Your task to perform on an android device: Play the last video I watched on Youtube Image 0: 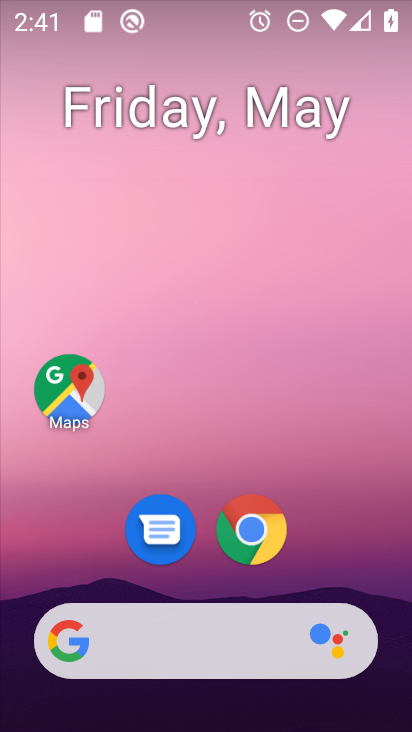
Step 0: drag from (395, 718) to (314, 228)
Your task to perform on an android device: Play the last video I watched on Youtube Image 1: 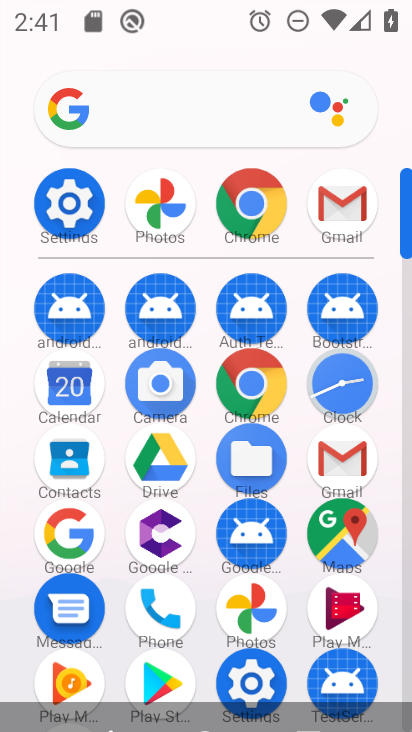
Step 1: drag from (407, 176) to (405, 50)
Your task to perform on an android device: Play the last video I watched on Youtube Image 2: 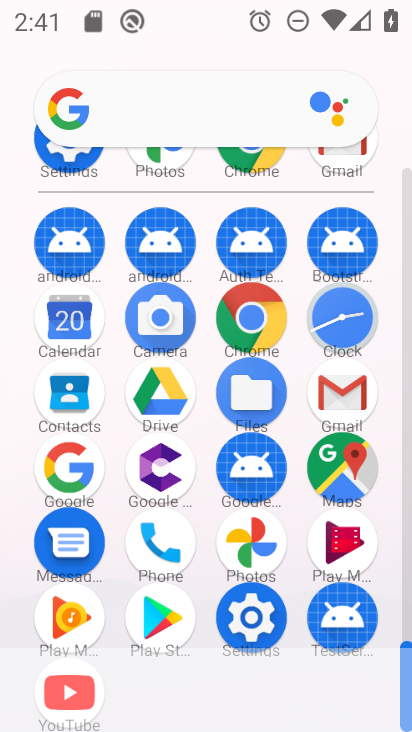
Step 2: click (56, 691)
Your task to perform on an android device: Play the last video I watched on Youtube Image 3: 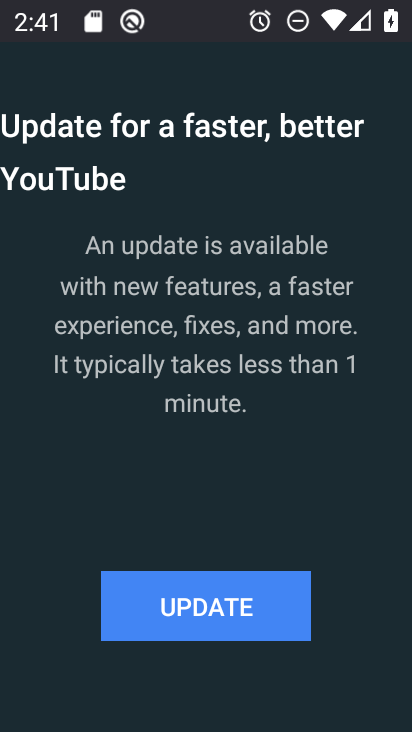
Step 3: click (194, 608)
Your task to perform on an android device: Play the last video I watched on Youtube Image 4: 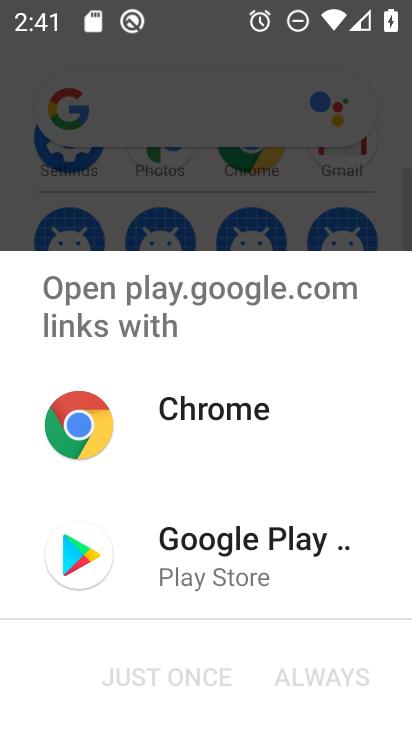
Step 4: click (171, 551)
Your task to perform on an android device: Play the last video I watched on Youtube Image 5: 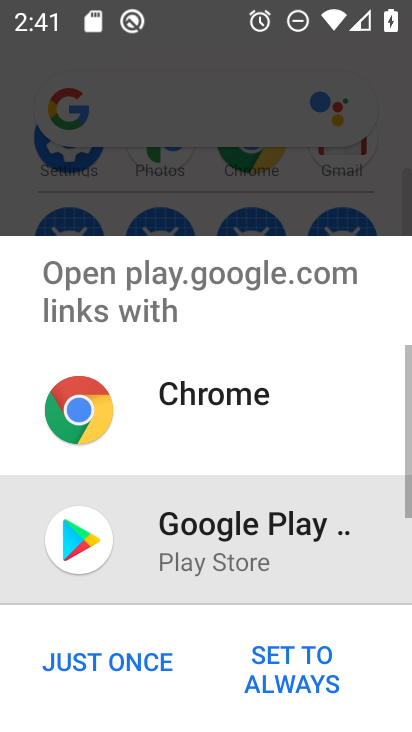
Step 5: click (119, 646)
Your task to perform on an android device: Play the last video I watched on Youtube Image 6: 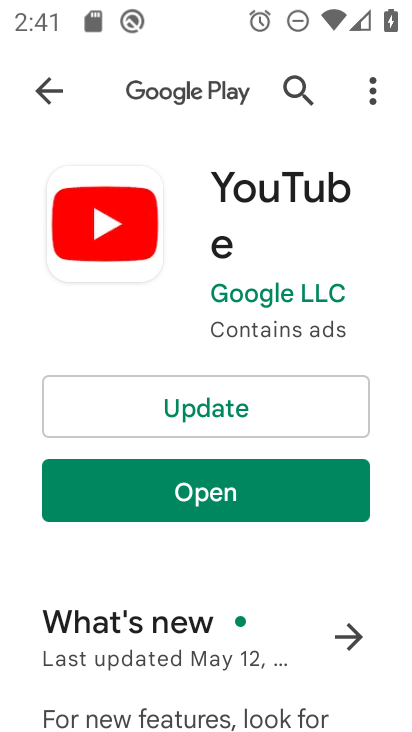
Step 6: click (218, 409)
Your task to perform on an android device: Play the last video I watched on Youtube Image 7: 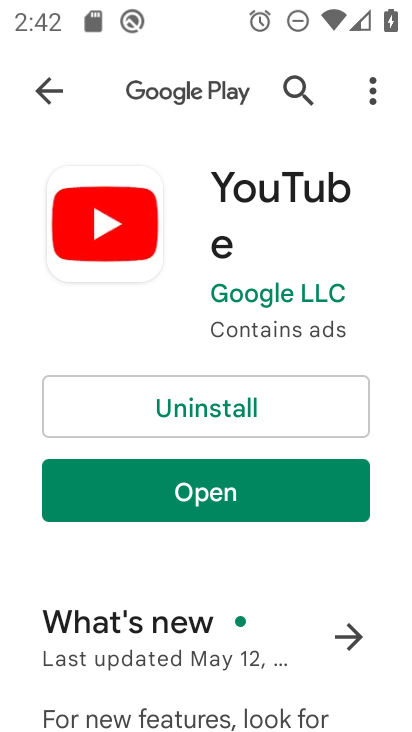
Step 7: click (230, 490)
Your task to perform on an android device: Play the last video I watched on Youtube Image 8: 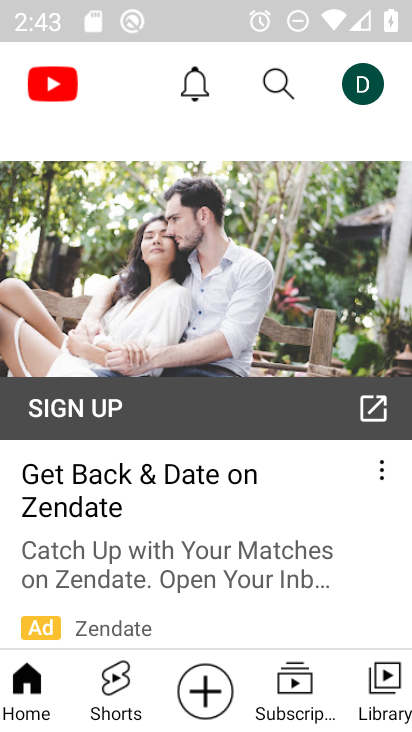
Step 8: click (386, 693)
Your task to perform on an android device: Play the last video I watched on Youtube Image 9: 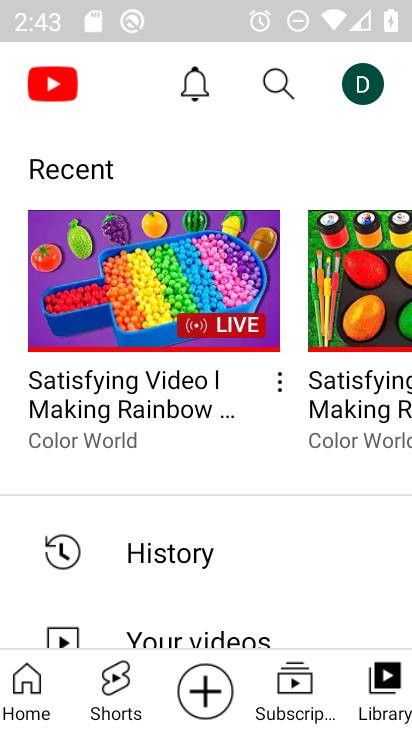
Step 9: click (129, 286)
Your task to perform on an android device: Play the last video I watched on Youtube Image 10: 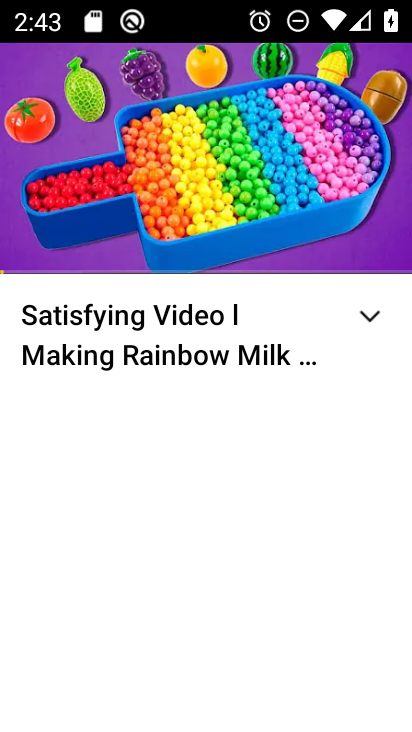
Step 10: task complete